Your task to perform on an android device: Do I have any events this weekend? Image 0: 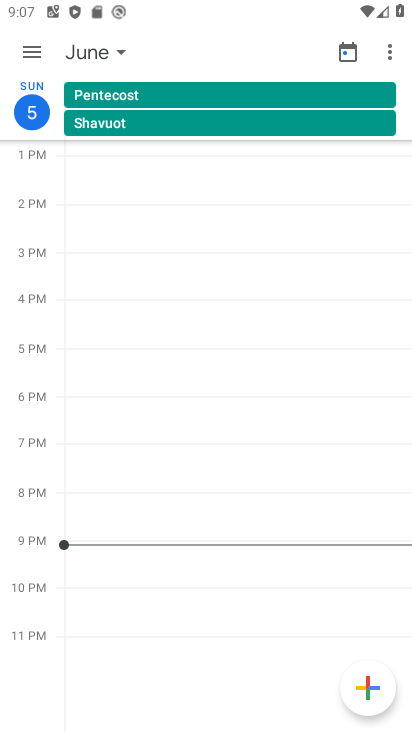
Step 0: click (26, 42)
Your task to perform on an android device: Do I have any events this weekend? Image 1: 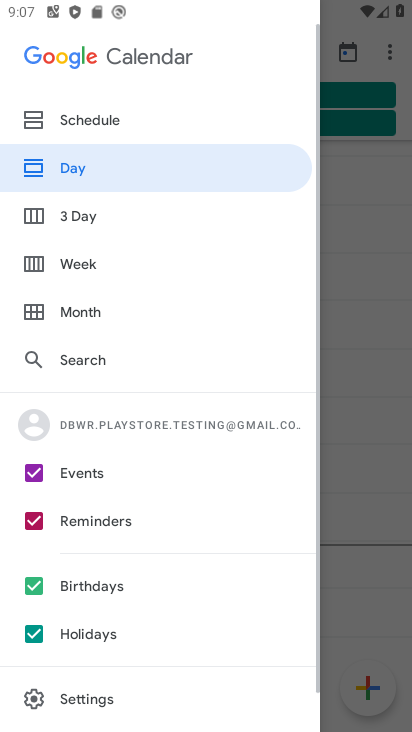
Step 1: click (41, 509)
Your task to perform on an android device: Do I have any events this weekend? Image 2: 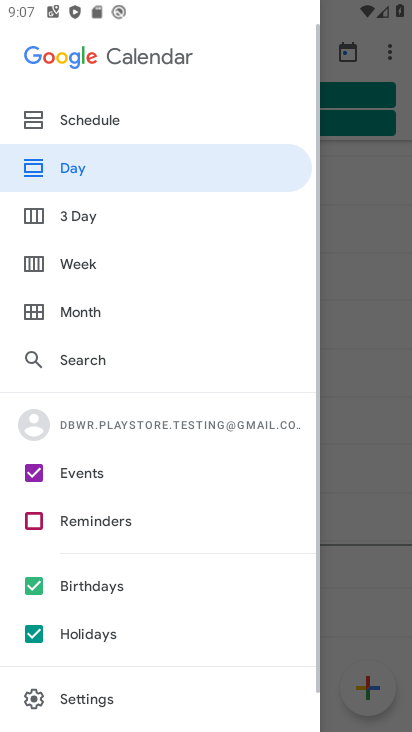
Step 2: click (27, 593)
Your task to perform on an android device: Do I have any events this weekend? Image 3: 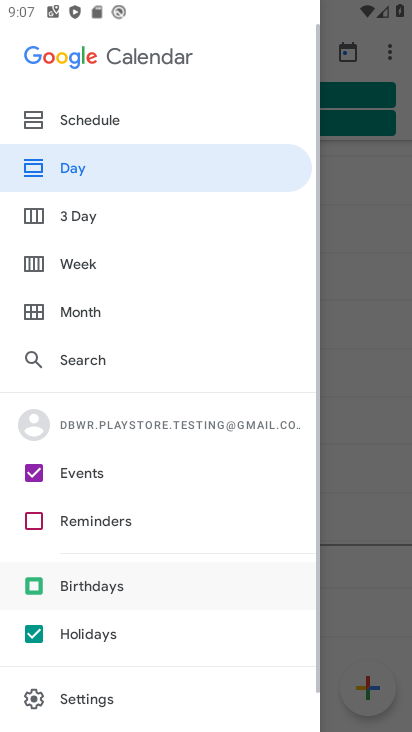
Step 3: click (32, 641)
Your task to perform on an android device: Do I have any events this weekend? Image 4: 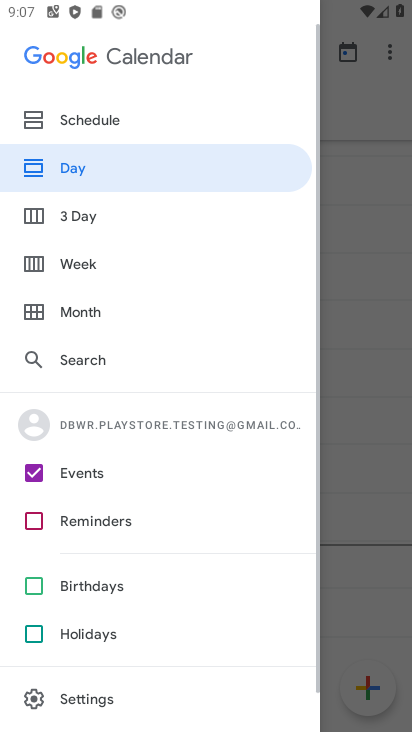
Step 4: click (100, 227)
Your task to perform on an android device: Do I have any events this weekend? Image 5: 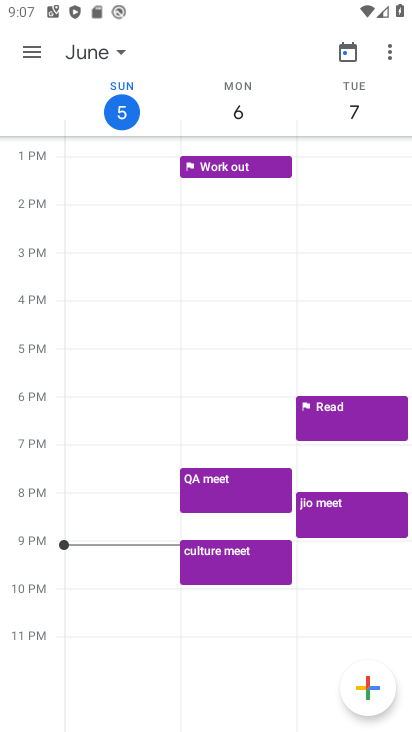
Step 5: task complete